Your task to perform on an android device: Open Android settings Image 0: 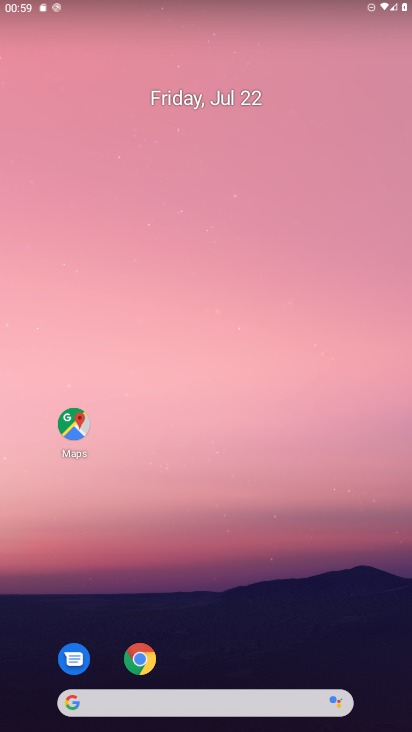
Step 0: drag from (226, 699) to (227, 125)
Your task to perform on an android device: Open Android settings Image 1: 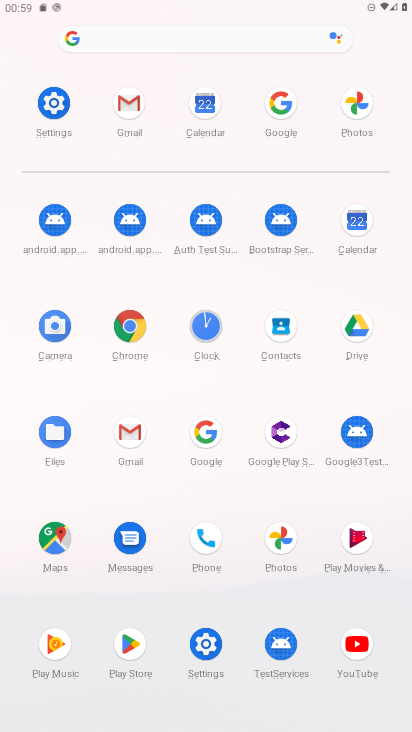
Step 1: click (56, 102)
Your task to perform on an android device: Open Android settings Image 2: 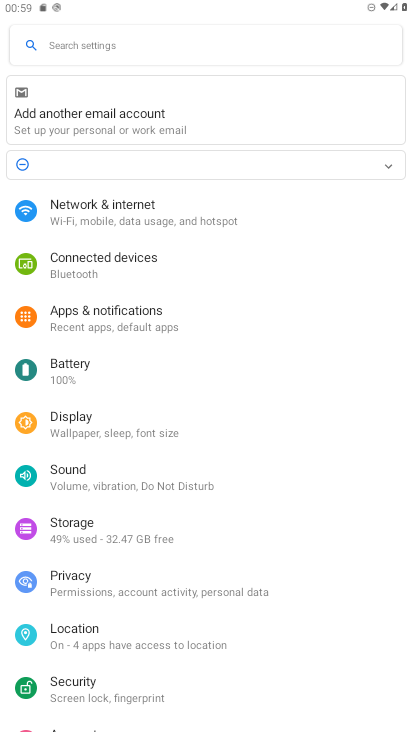
Step 2: task complete